Your task to perform on an android device: toggle priority inbox in the gmail app Image 0: 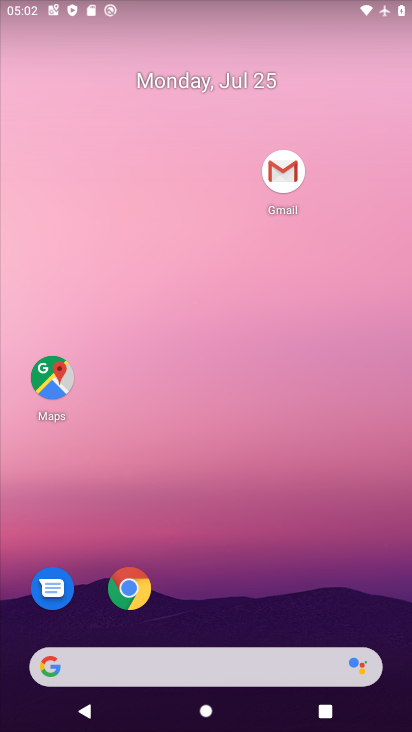
Step 0: drag from (273, 583) to (249, 47)
Your task to perform on an android device: toggle priority inbox in the gmail app Image 1: 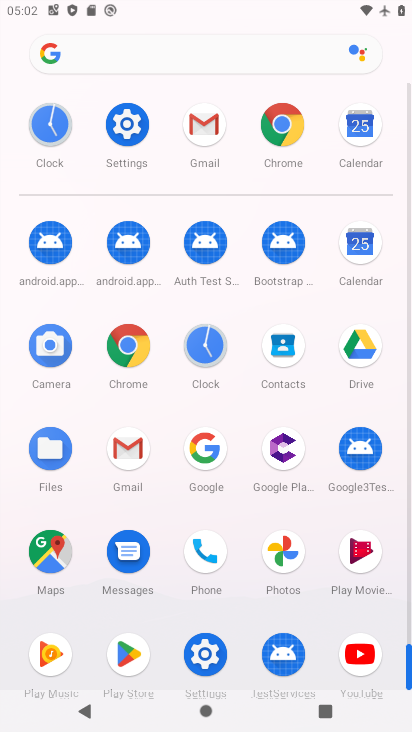
Step 1: click (209, 133)
Your task to perform on an android device: toggle priority inbox in the gmail app Image 2: 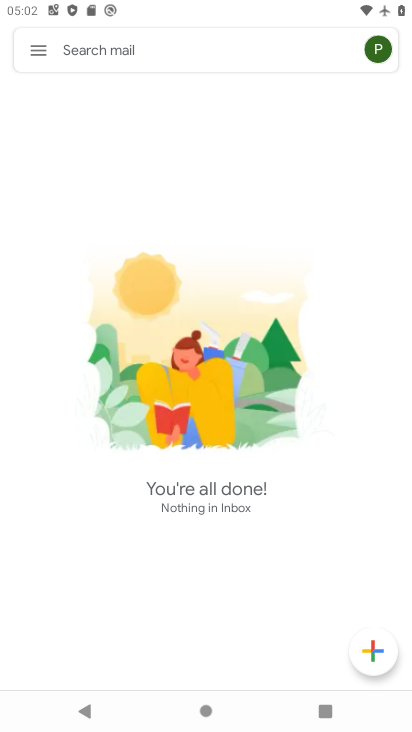
Step 2: click (38, 51)
Your task to perform on an android device: toggle priority inbox in the gmail app Image 3: 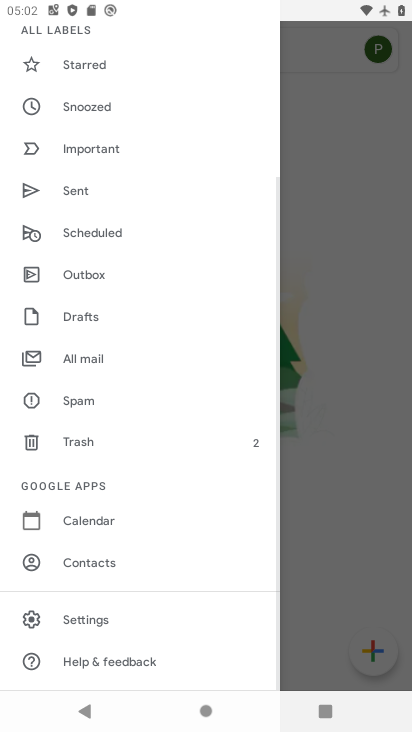
Step 3: click (102, 626)
Your task to perform on an android device: toggle priority inbox in the gmail app Image 4: 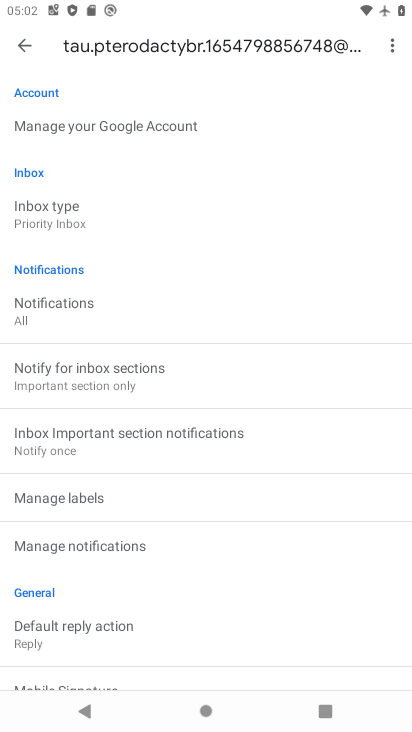
Step 4: click (68, 210)
Your task to perform on an android device: toggle priority inbox in the gmail app Image 5: 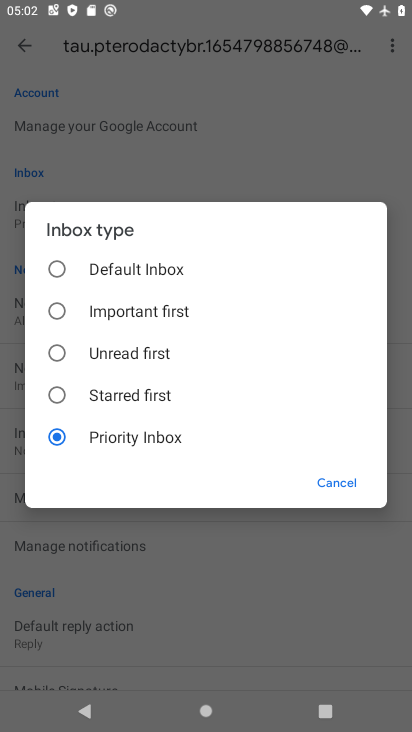
Step 5: click (119, 283)
Your task to perform on an android device: toggle priority inbox in the gmail app Image 6: 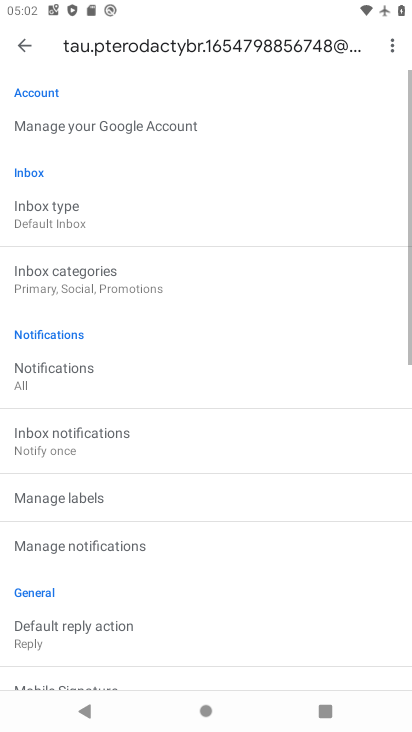
Step 6: task complete